Your task to perform on an android device: toggle improve location accuracy Image 0: 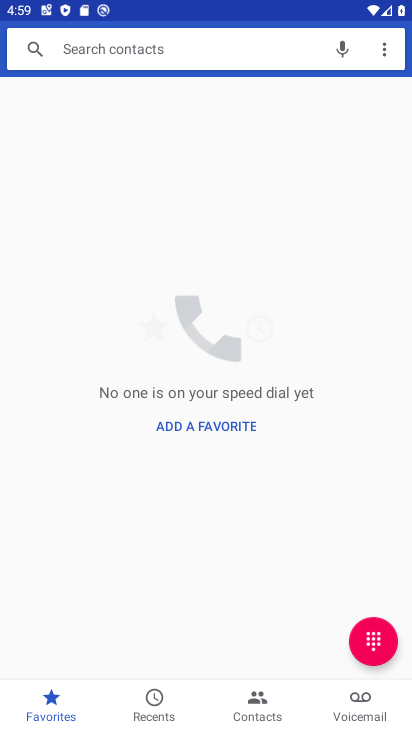
Step 0: press home button
Your task to perform on an android device: toggle improve location accuracy Image 1: 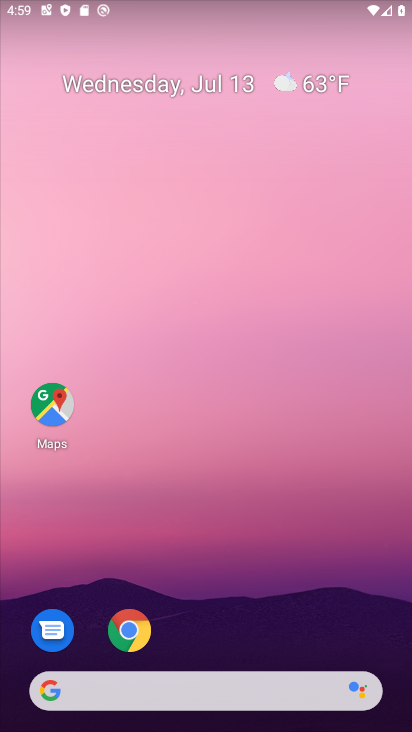
Step 1: drag from (252, 637) to (252, 275)
Your task to perform on an android device: toggle improve location accuracy Image 2: 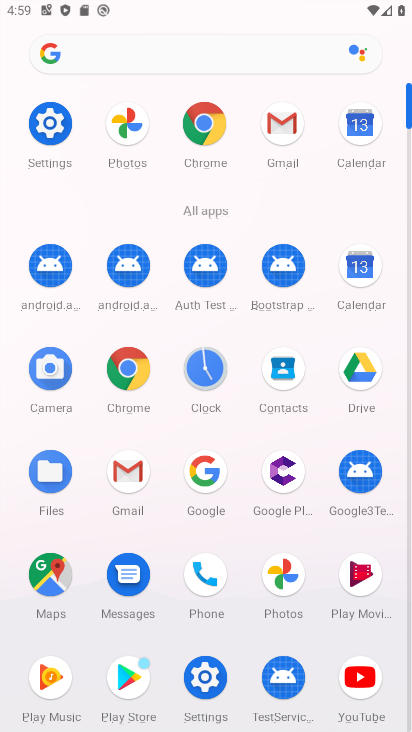
Step 2: click (50, 128)
Your task to perform on an android device: toggle improve location accuracy Image 3: 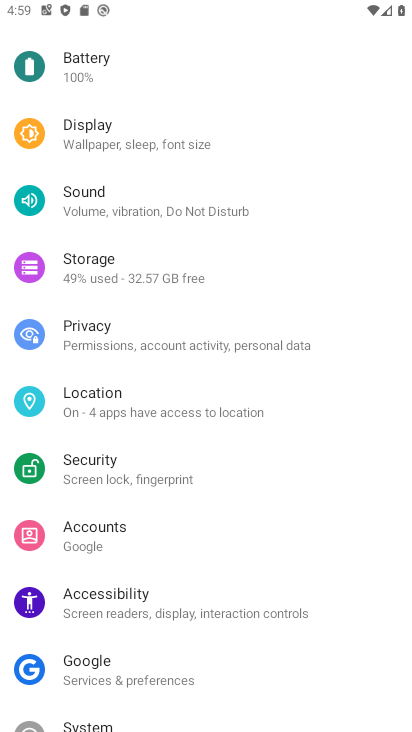
Step 3: click (95, 398)
Your task to perform on an android device: toggle improve location accuracy Image 4: 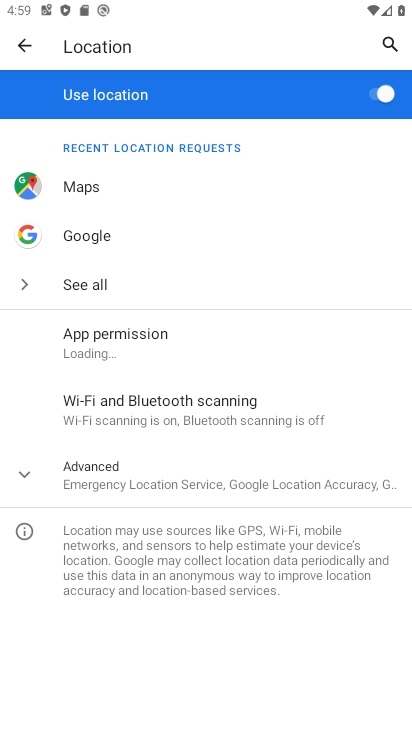
Step 4: click (100, 485)
Your task to perform on an android device: toggle improve location accuracy Image 5: 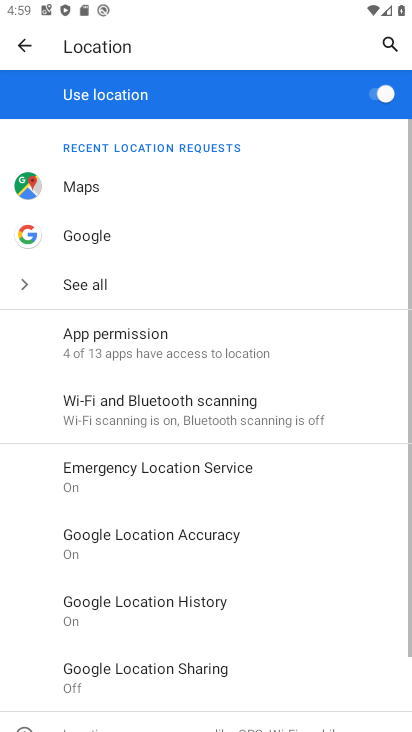
Step 5: click (152, 539)
Your task to perform on an android device: toggle improve location accuracy Image 6: 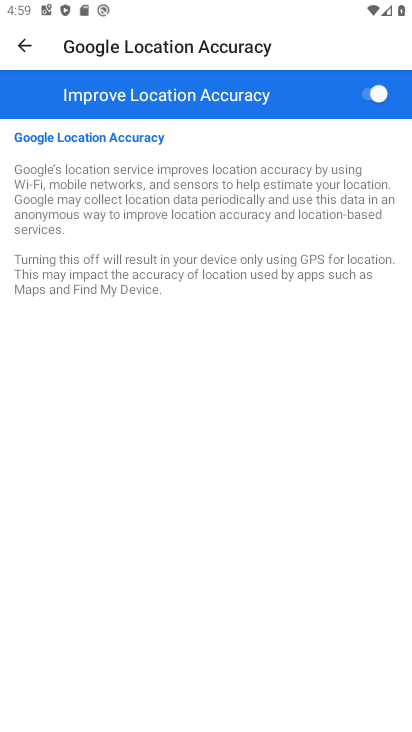
Step 6: click (376, 96)
Your task to perform on an android device: toggle improve location accuracy Image 7: 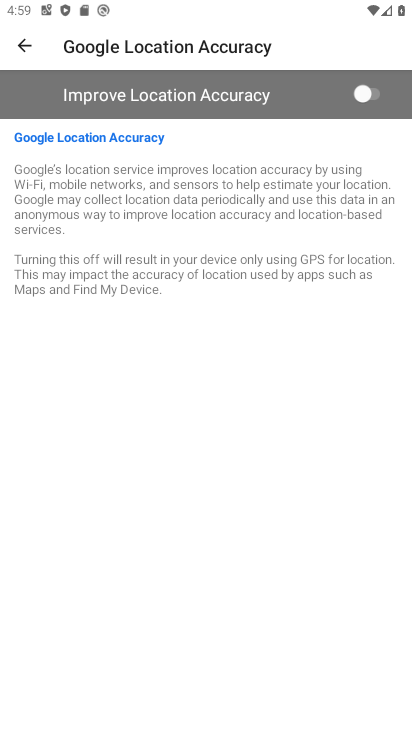
Step 7: task complete